Your task to perform on an android device: What's on my calendar today? Image 0: 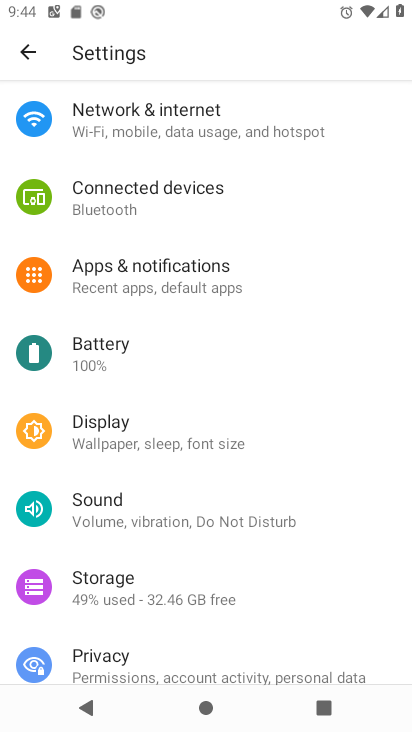
Step 0: press home button
Your task to perform on an android device: What's on my calendar today? Image 1: 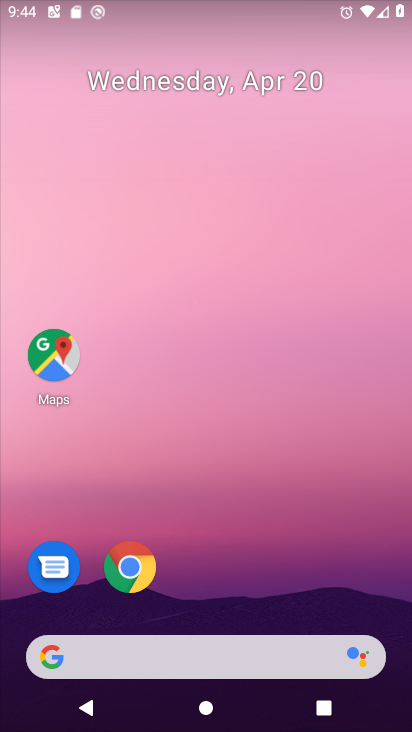
Step 1: drag from (330, 556) to (364, 210)
Your task to perform on an android device: What's on my calendar today? Image 2: 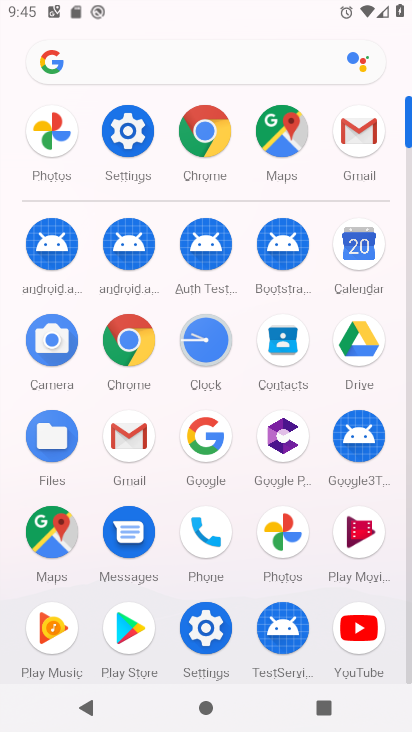
Step 2: click (368, 258)
Your task to perform on an android device: What's on my calendar today? Image 3: 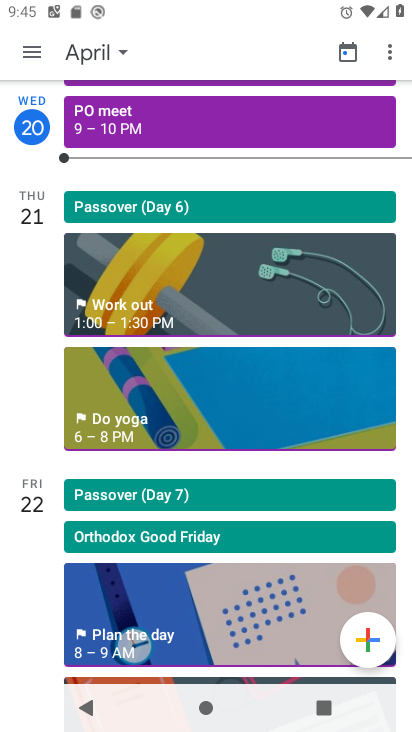
Step 3: click (121, 53)
Your task to perform on an android device: What's on my calendar today? Image 4: 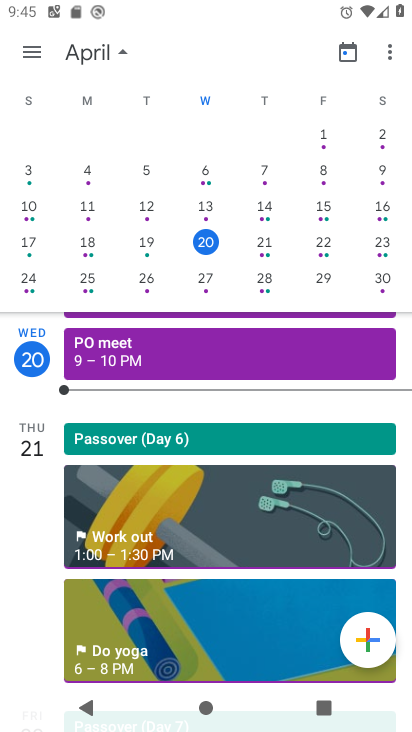
Step 4: click (266, 244)
Your task to perform on an android device: What's on my calendar today? Image 5: 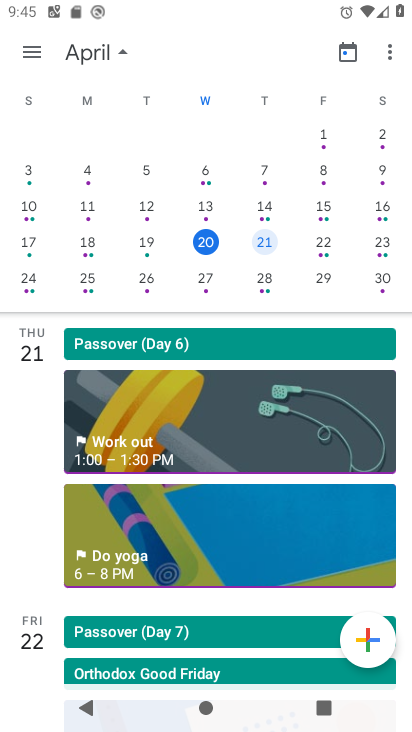
Step 5: task complete